Your task to perform on an android device: What's on my calendar tomorrow? Image 0: 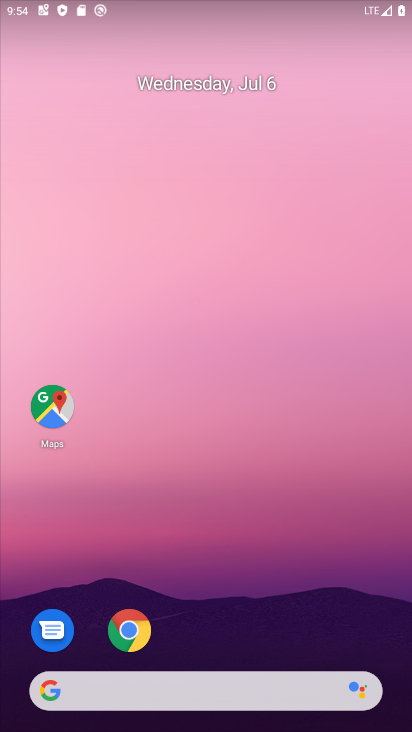
Step 0: drag from (384, 633) to (305, 29)
Your task to perform on an android device: What's on my calendar tomorrow? Image 1: 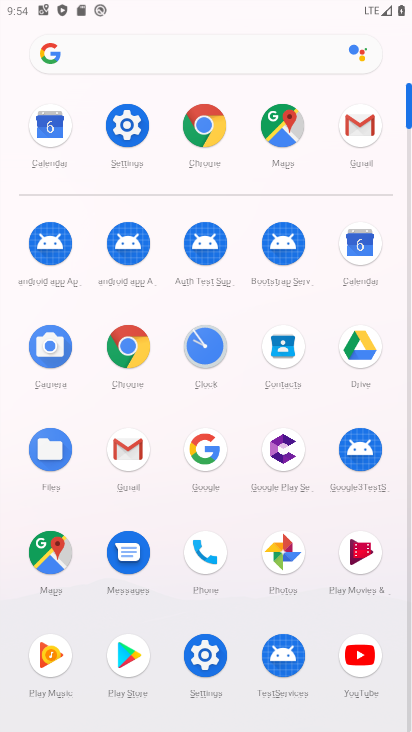
Step 1: click (358, 246)
Your task to perform on an android device: What's on my calendar tomorrow? Image 2: 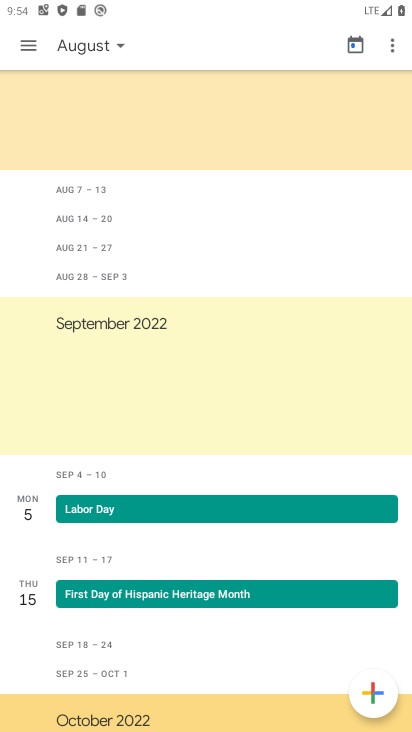
Step 2: click (24, 54)
Your task to perform on an android device: What's on my calendar tomorrow? Image 3: 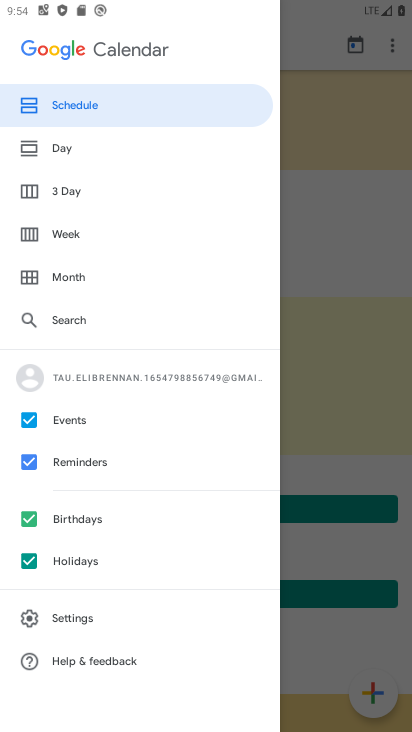
Step 3: click (59, 144)
Your task to perform on an android device: What's on my calendar tomorrow? Image 4: 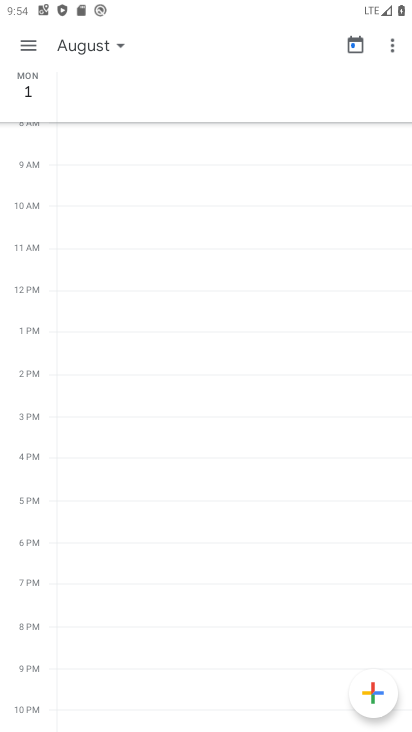
Step 4: click (113, 44)
Your task to perform on an android device: What's on my calendar tomorrow? Image 5: 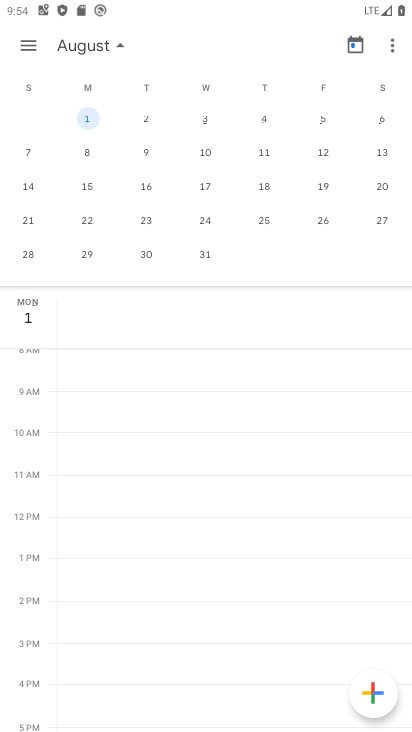
Step 5: drag from (28, 165) to (404, 170)
Your task to perform on an android device: What's on my calendar tomorrow? Image 6: 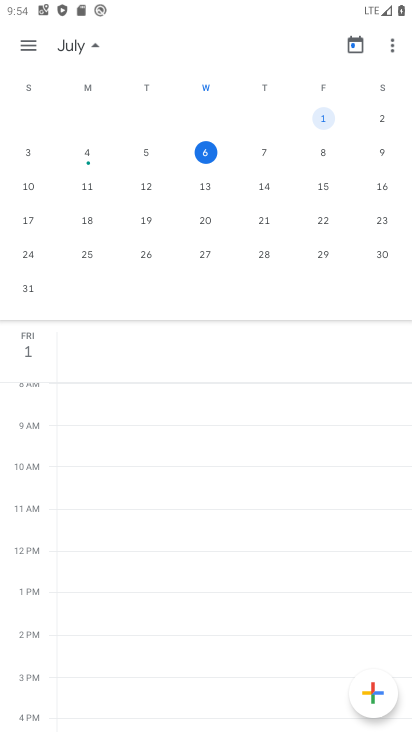
Step 6: click (263, 153)
Your task to perform on an android device: What's on my calendar tomorrow? Image 7: 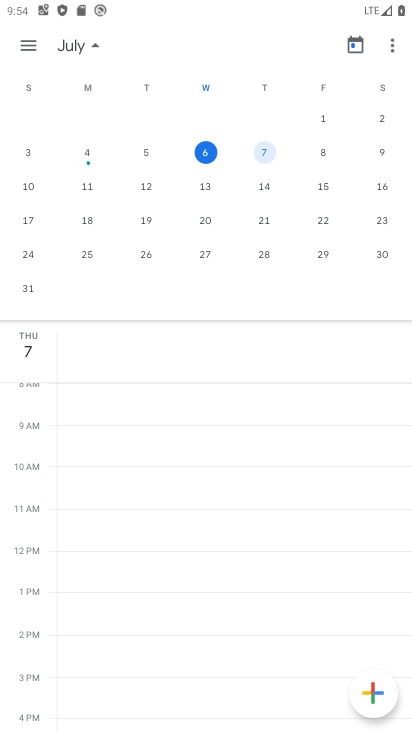
Step 7: task complete